Your task to perform on an android device: What's the weather today? Image 0: 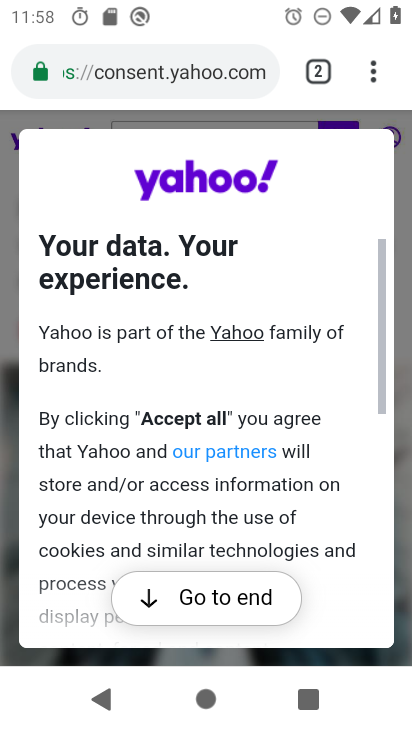
Step 0: press home button
Your task to perform on an android device: What's the weather today? Image 1: 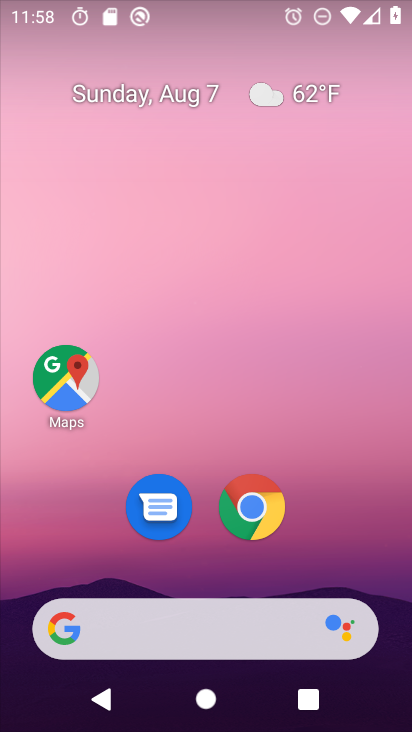
Step 1: drag from (363, 514) to (380, 2)
Your task to perform on an android device: What's the weather today? Image 2: 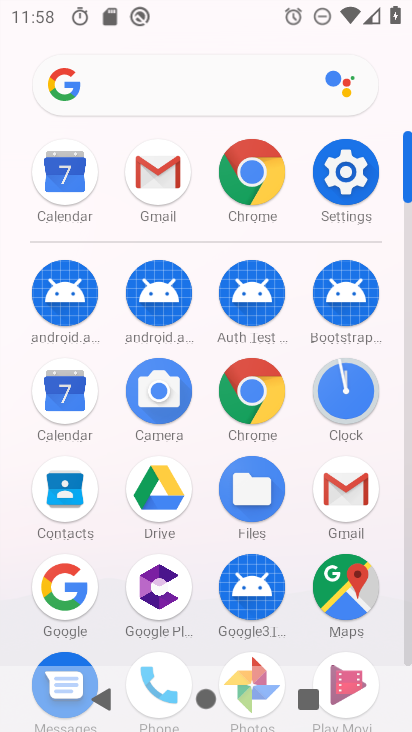
Step 2: click (256, 393)
Your task to perform on an android device: What's the weather today? Image 3: 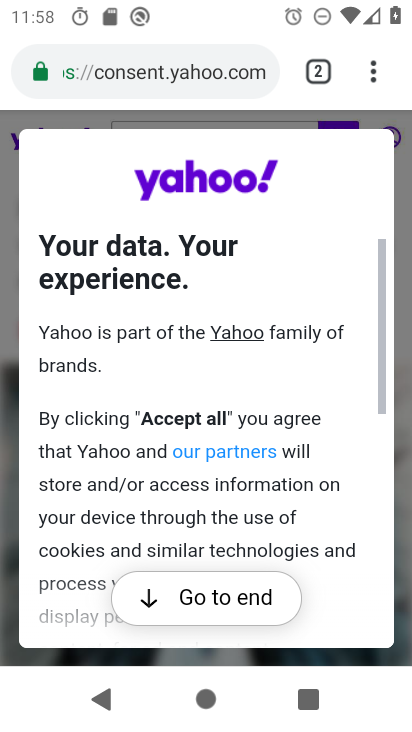
Step 3: click (223, 66)
Your task to perform on an android device: What's the weather today? Image 4: 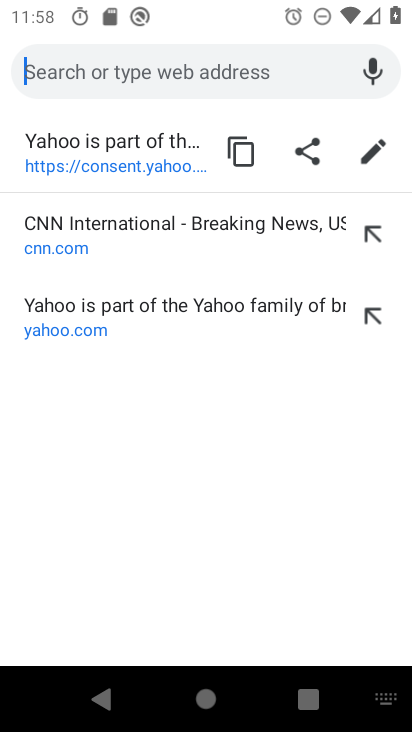
Step 4: type "weather"
Your task to perform on an android device: What's the weather today? Image 5: 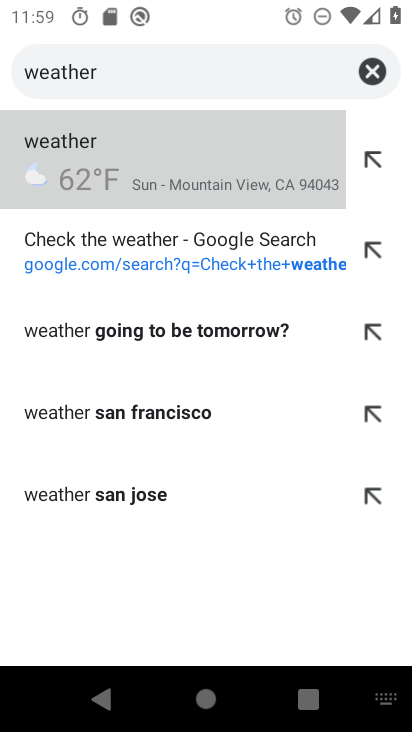
Step 5: click (236, 180)
Your task to perform on an android device: What's the weather today? Image 6: 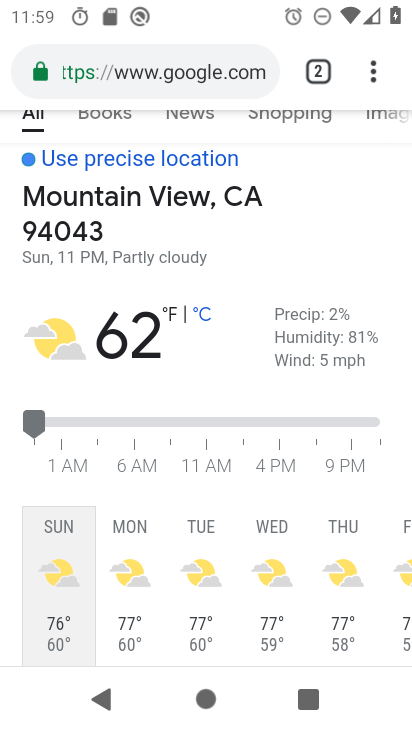
Step 6: task complete